Your task to perform on an android device: Open Youtube and go to "Your channel" Image 0: 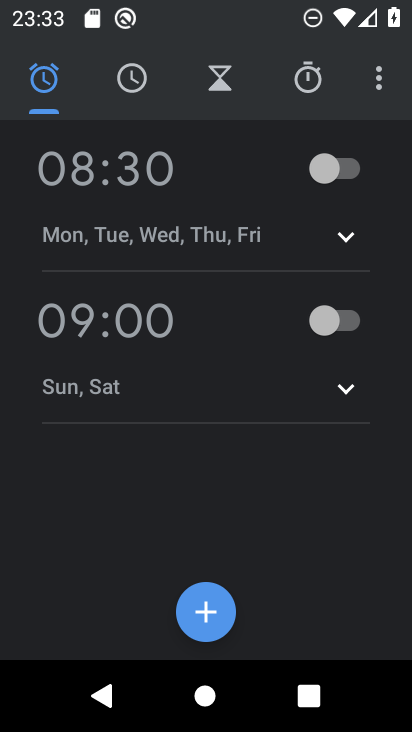
Step 0: press home button
Your task to perform on an android device: Open Youtube and go to "Your channel" Image 1: 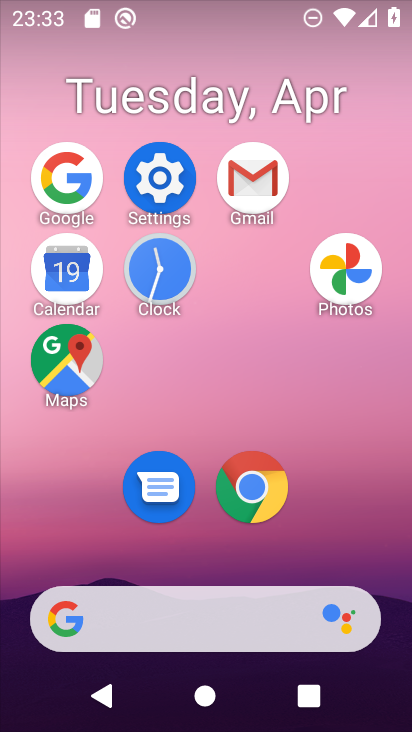
Step 1: drag from (272, 576) to (349, 84)
Your task to perform on an android device: Open Youtube and go to "Your channel" Image 2: 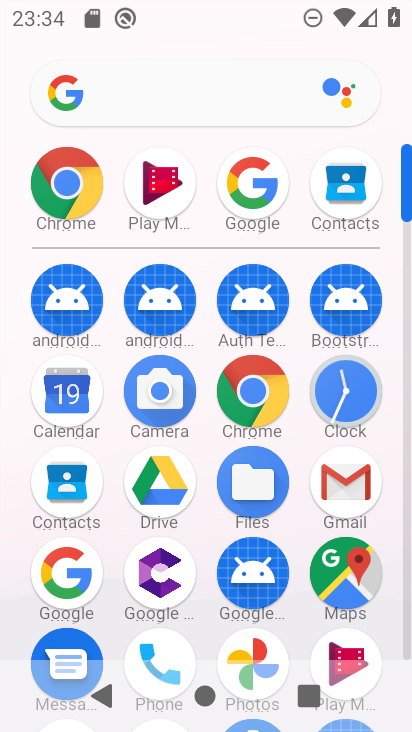
Step 2: drag from (224, 469) to (280, 111)
Your task to perform on an android device: Open Youtube and go to "Your channel" Image 3: 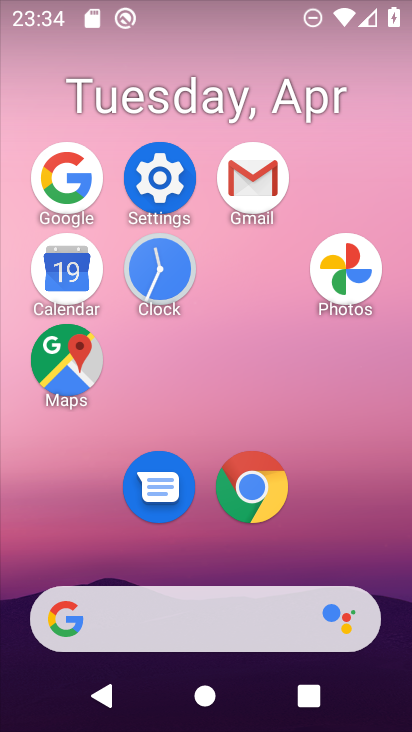
Step 3: drag from (298, 567) to (339, 84)
Your task to perform on an android device: Open Youtube and go to "Your channel" Image 4: 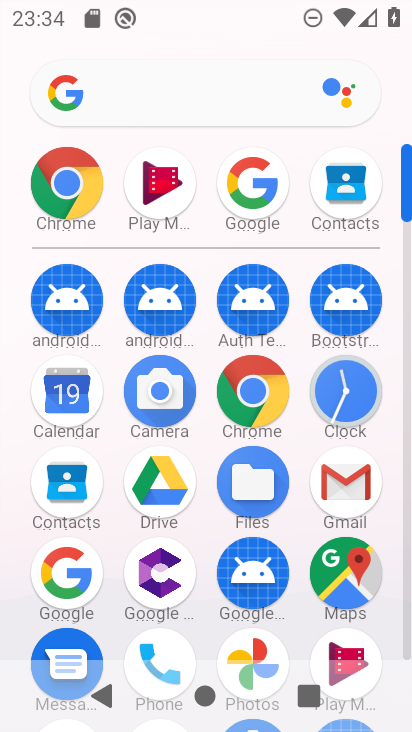
Step 4: drag from (198, 616) to (247, 141)
Your task to perform on an android device: Open Youtube and go to "Your channel" Image 5: 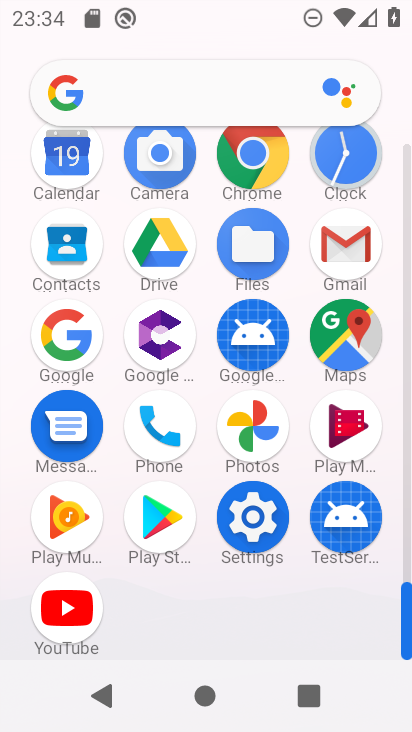
Step 5: click (75, 607)
Your task to perform on an android device: Open Youtube and go to "Your channel" Image 6: 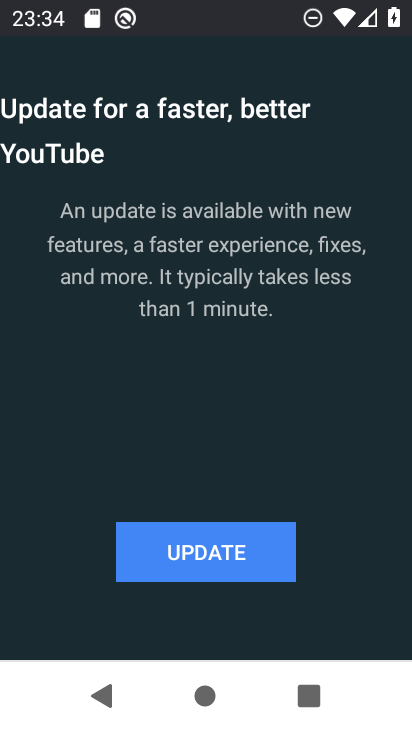
Step 6: click (239, 558)
Your task to perform on an android device: Open Youtube and go to "Your channel" Image 7: 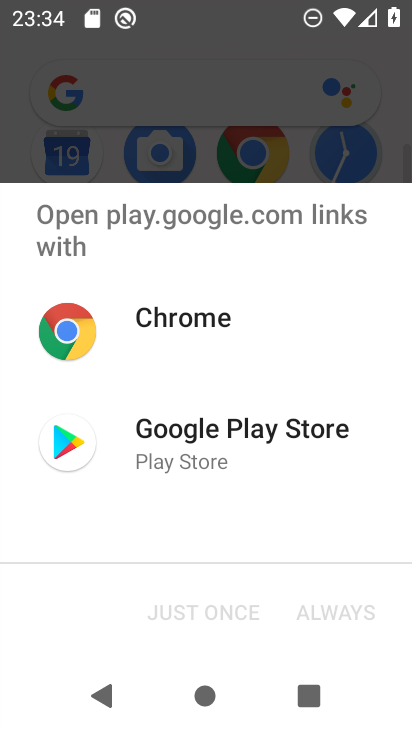
Step 7: click (216, 432)
Your task to perform on an android device: Open Youtube and go to "Your channel" Image 8: 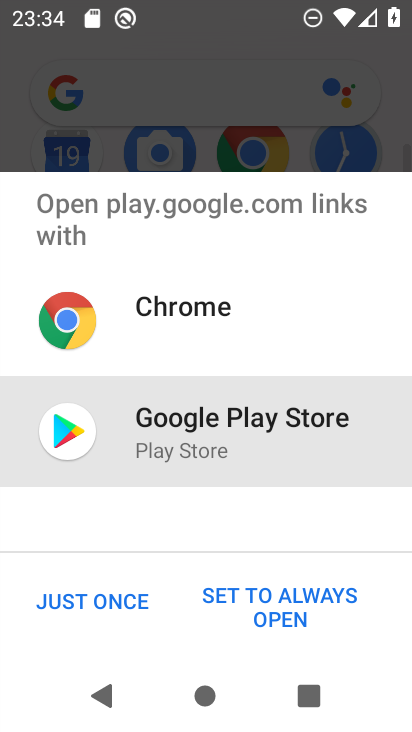
Step 8: click (216, 432)
Your task to perform on an android device: Open Youtube and go to "Your channel" Image 9: 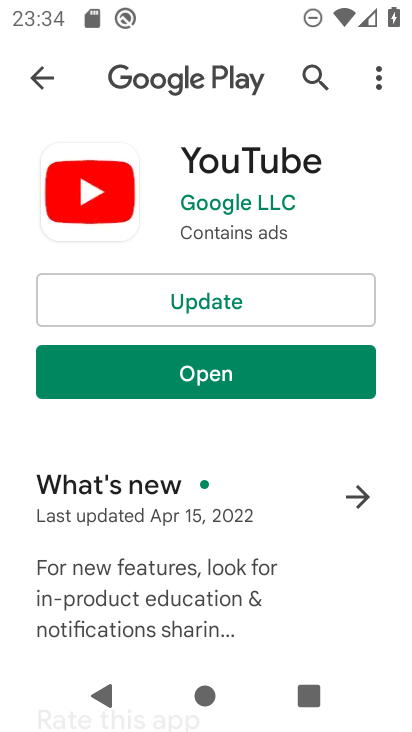
Step 9: click (295, 305)
Your task to perform on an android device: Open Youtube and go to "Your channel" Image 10: 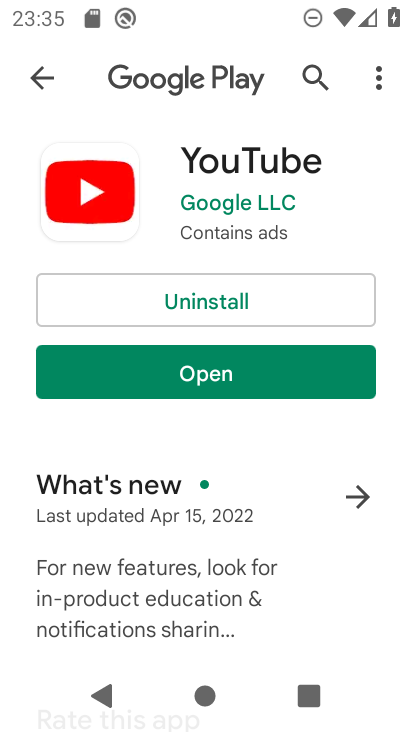
Step 10: click (251, 385)
Your task to perform on an android device: Open Youtube and go to "Your channel" Image 11: 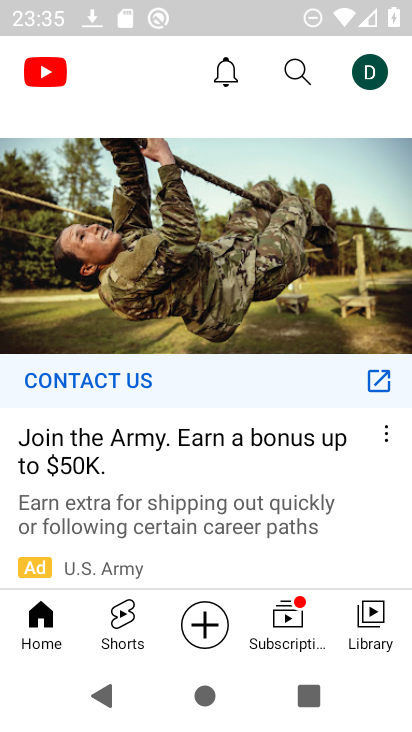
Step 11: click (375, 67)
Your task to perform on an android device: Open Youtube and go to "Your channel" Image 12: 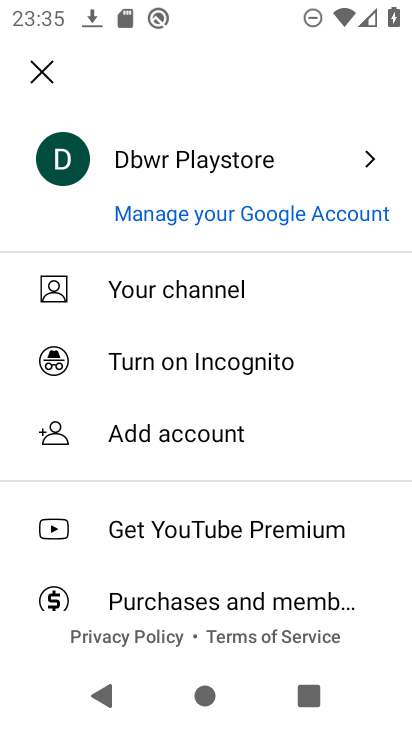
Step 12: click (220, 309)
Your task to perform on an android device: Open Youtube and go to "Your channel" Image 13: 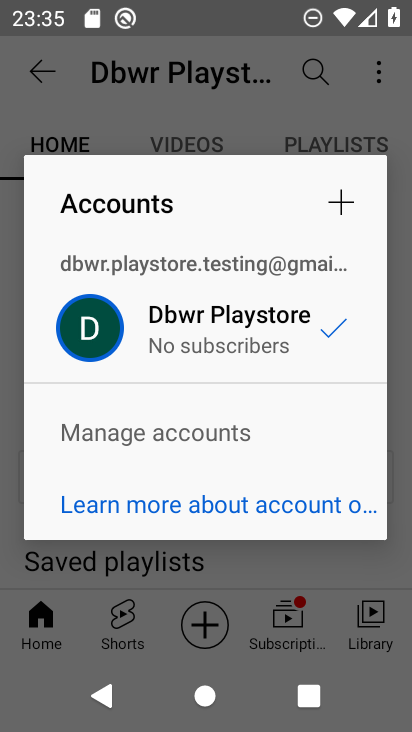
Step 13: task complete